Your task to perform on an android device: What's on my calendar tomorrow? Image 0: 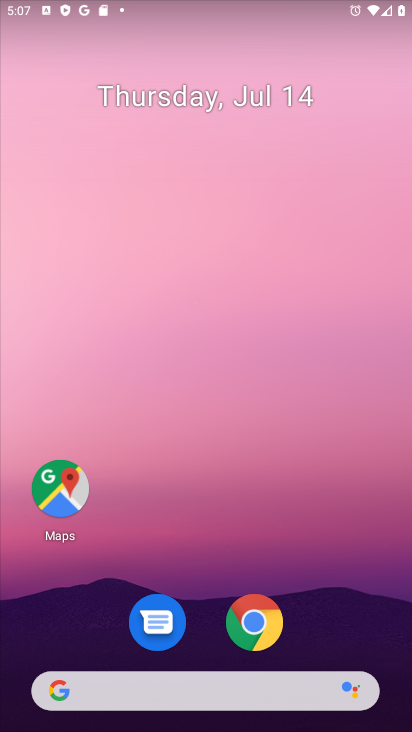
Step 0: click (224, 99)
Your task to perform on an android device: What's on my calendar tomorrow? Image 1: 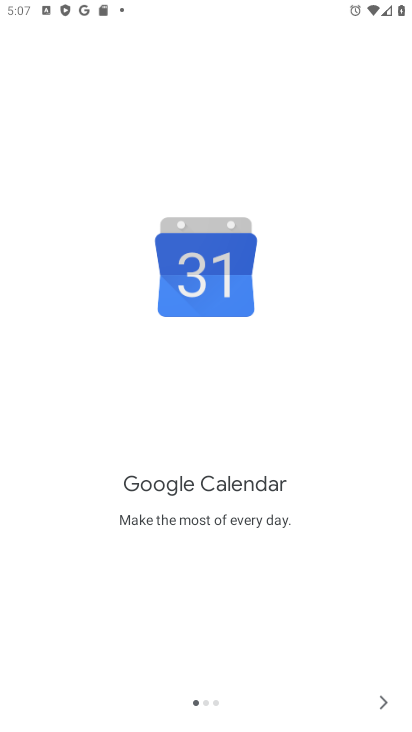
Step 1: click (224, 99)
Your task to perform on an android device: What's on my calendar tomorrow? Image 2: 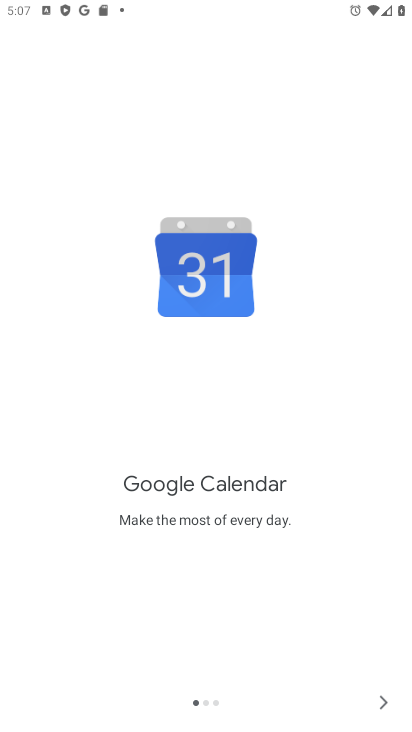
Step 2: click (375, 707)
Your task to perform on an android device: What's on my calendar tomorrow? Image 3: 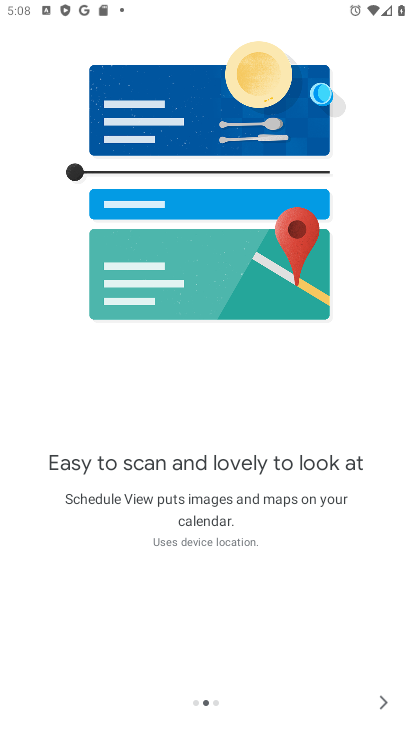
Step 3: click (375, 707)
Your task to perform on an android device: What's on my calendar tomorrow? Image 4: 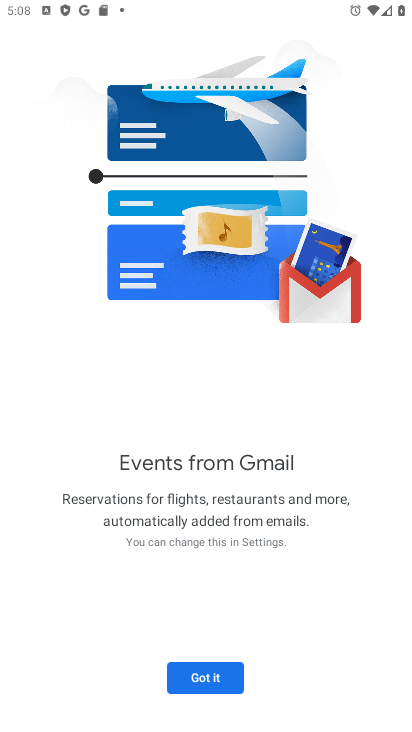
Step 4: click (192, 670)
Your task to perform on an android device: What's on my calendar tomorrow? Image 5: 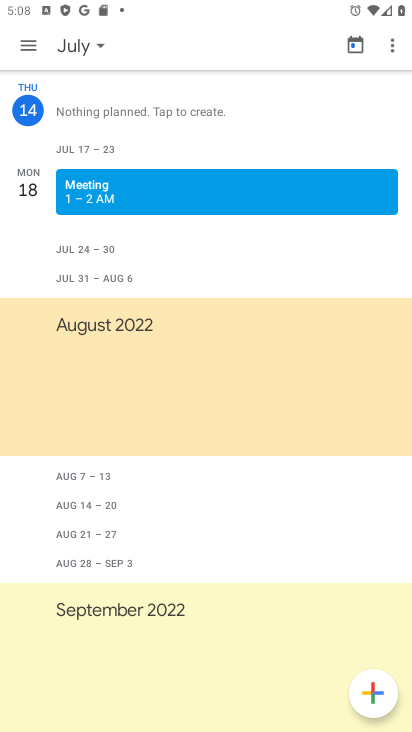
Step 5: click (57, 49)
Your task to perform on an android device: What's on my calendar tomorrow? Image 6: 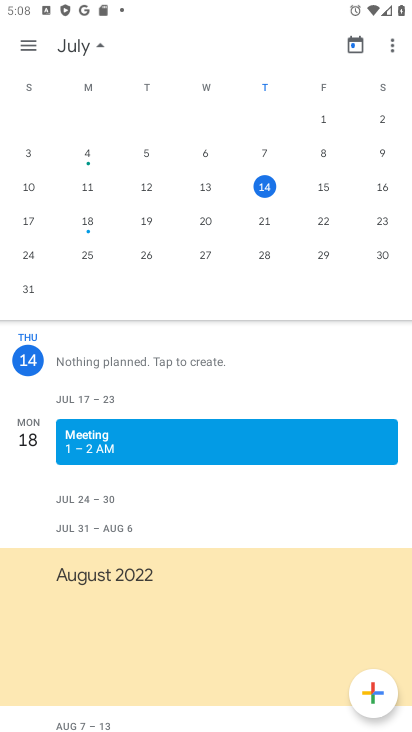
Step 6: click (328, 193)
Your task to perform on an android device: What's on my calendar tomorrow? Image 7: 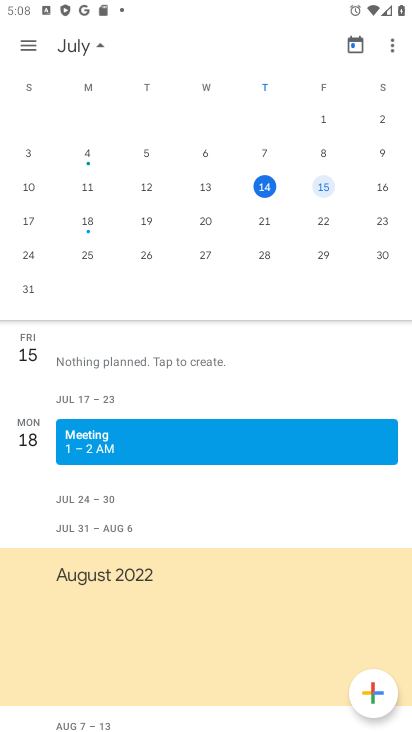
Step 7: task complete